Your task to perform on an android device: Go to location settings Image 0: 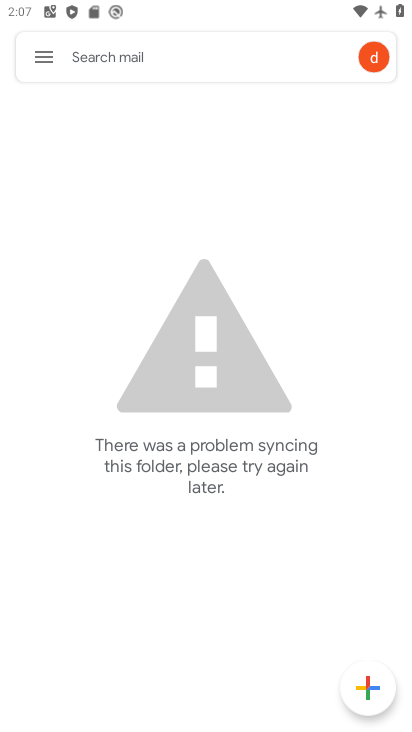
Step 0: press home button
Your task to perform on an android device: Go to location settings Image 1: 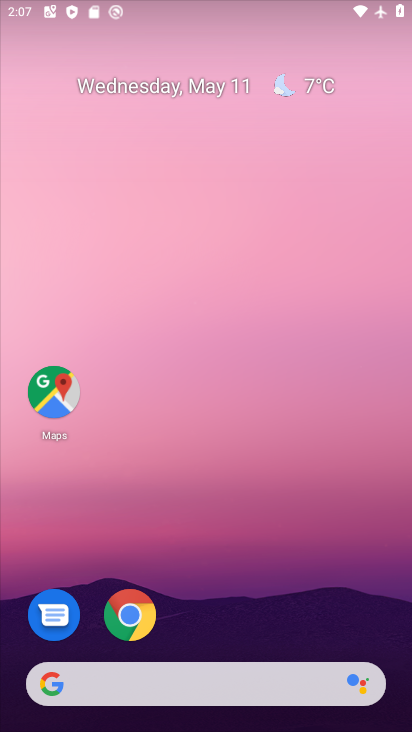
Step 1: drag from (274, 625) to (245, 69)
Your task to perform on an android device: Go to location settings Image 2: 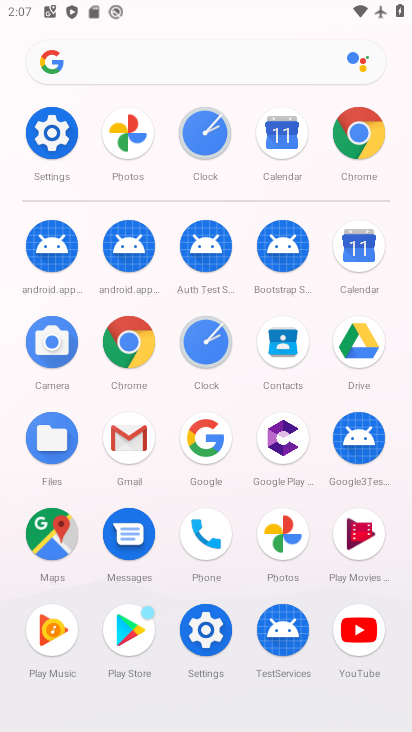
Step 2: click (48, 138)
Your task to perform on an android device: Go to location settings Image 3: 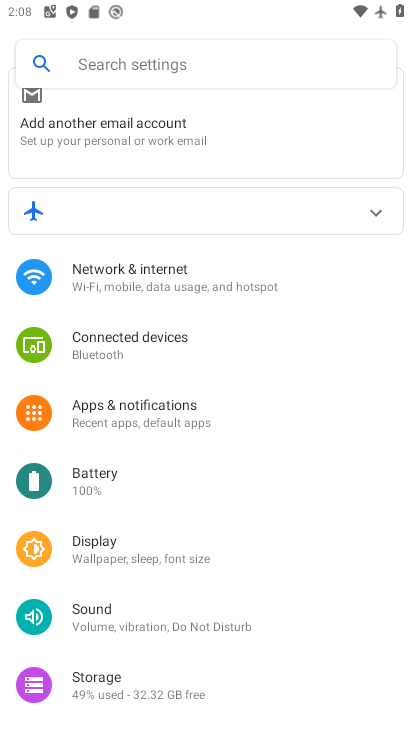
Step 3: drag from (222, 608) to (247, 159)
Your task to perform on an android device: Go to location settings Image 4: 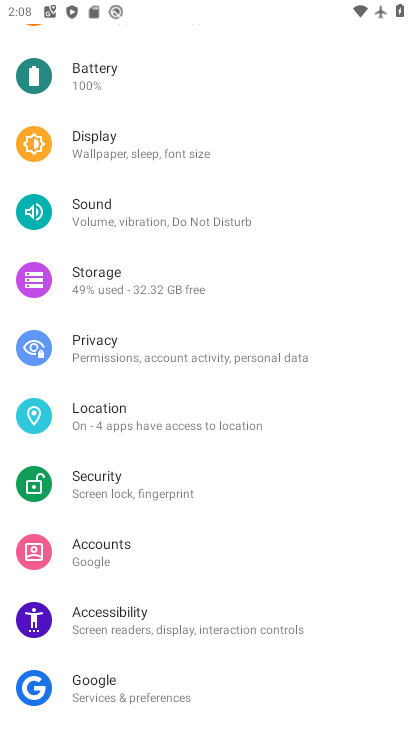
Step 4: click (163, 415)
Your task to perform on an android device: Go to location settings Image 5: 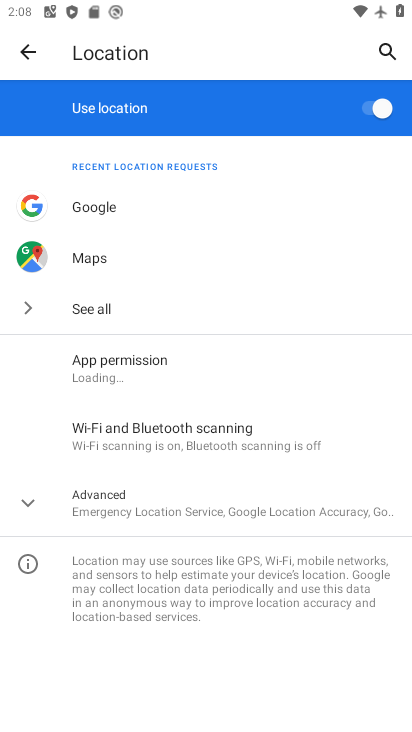
Step 5: task complete